Your task to perform on an android device: Open accessibility settings Image 0: 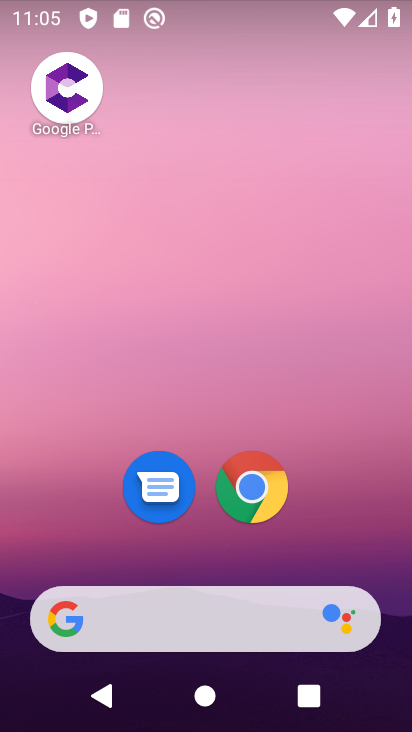
Step 0: drag from (202, 480) to (240, 50)
Your task to perform on an android device: Open accessibility settings Image 1: 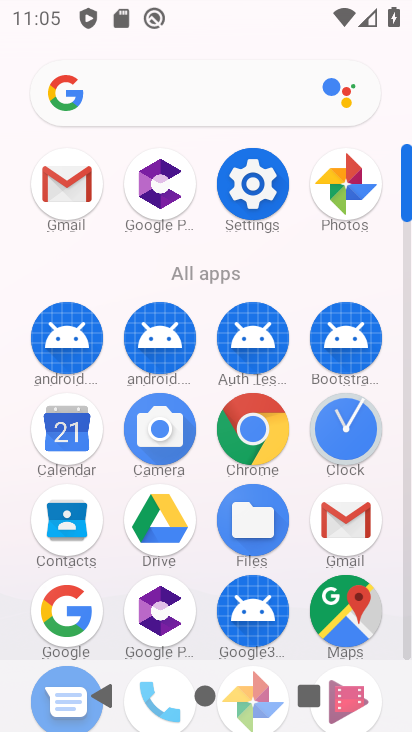
Step 1: drag from (204, 507) to (216, 196)
Your task to perform on an android device: Open accessibility settings Image 2: 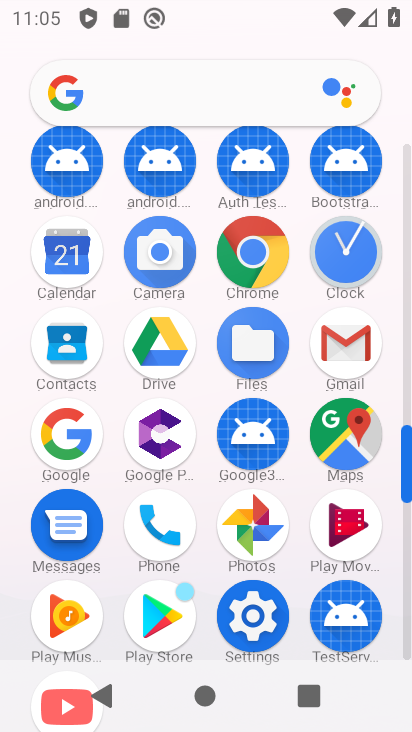
Step 2: drag from (204, 617) to (220, 376)
Your task to perform on an android device: Open accessibility settings Image 3: 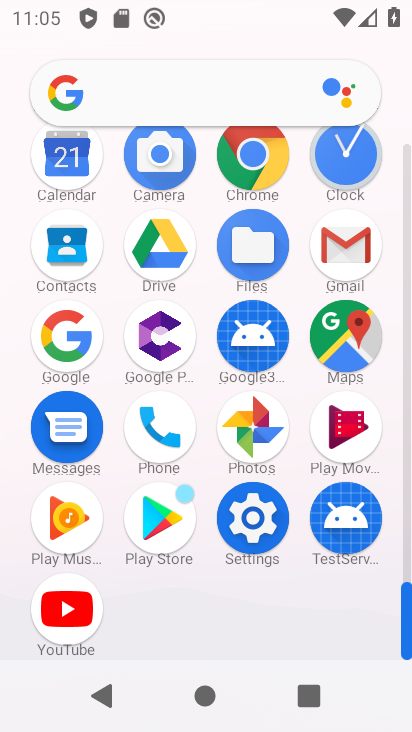
Step 3: click (252, 516)
Your task to perform on an android device: Open accessibility settings Image 4: 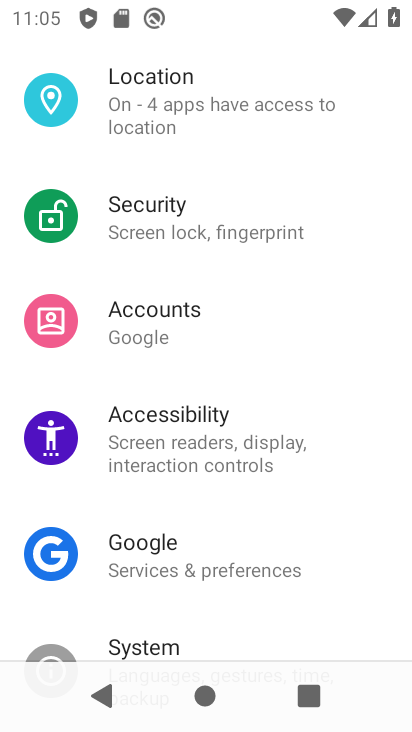
Step 4: click (236, 427)
Your task to perform on an android device: Open accessibility settings Image 5: 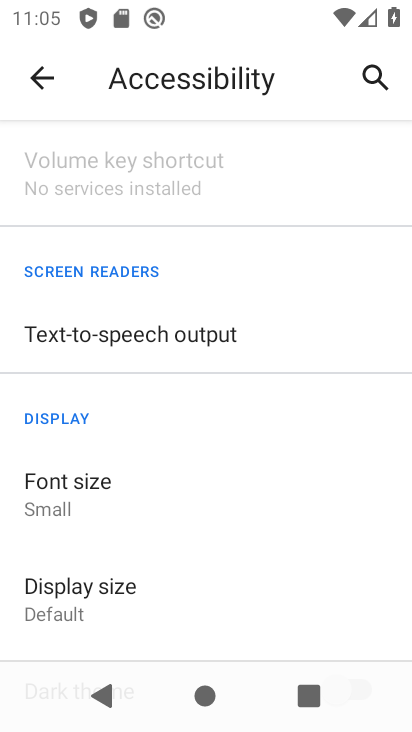
Step 5: task complete